Your task to perform on an android device: Open Reddit.com Image 0: 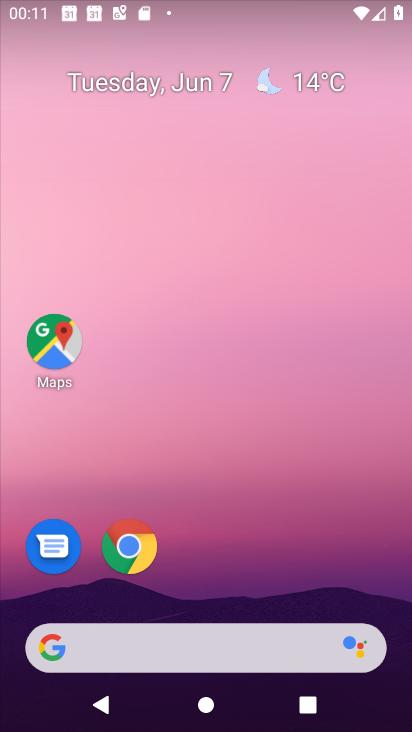
Step 0: click (141, 553)
Your task to perform on an android device: Open Reddit.com Image 1: 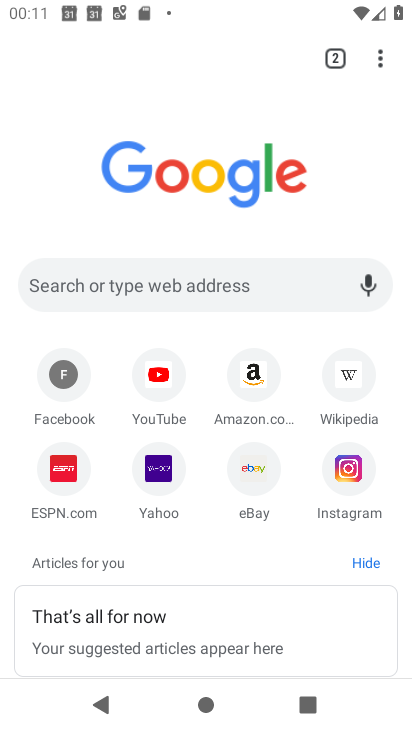
Step 1: click (206, 284)
Your task to perform on an android device: Open Reddit.com Image 2: 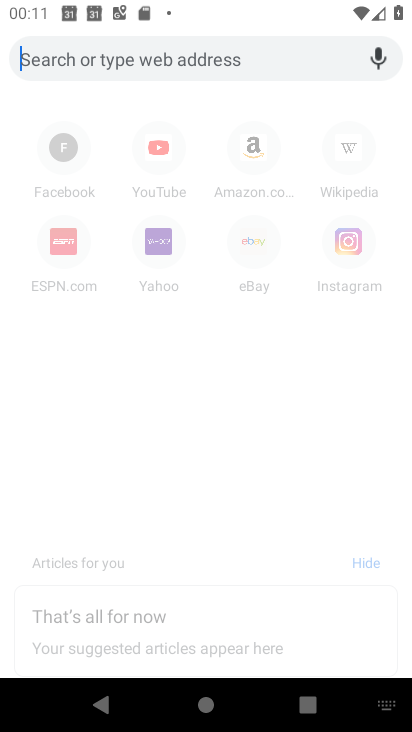
Step 2: type "Reddit.com"
Your task to perform on an android device: Open Reddit.com Image 3: 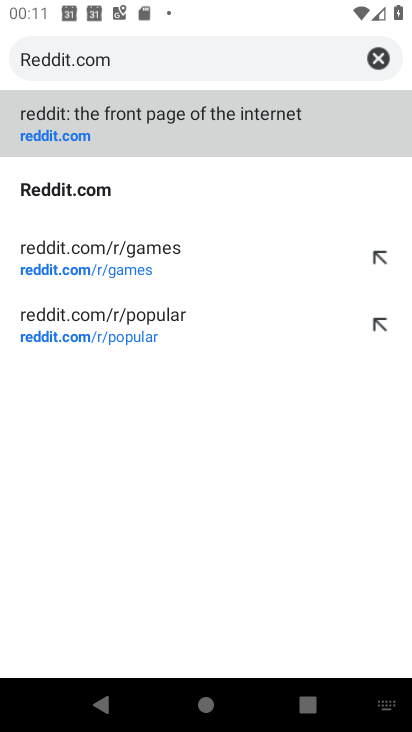
Step 3: click (75, 117)
Your task to perform on an android device: Open Reddit.com Image 4: 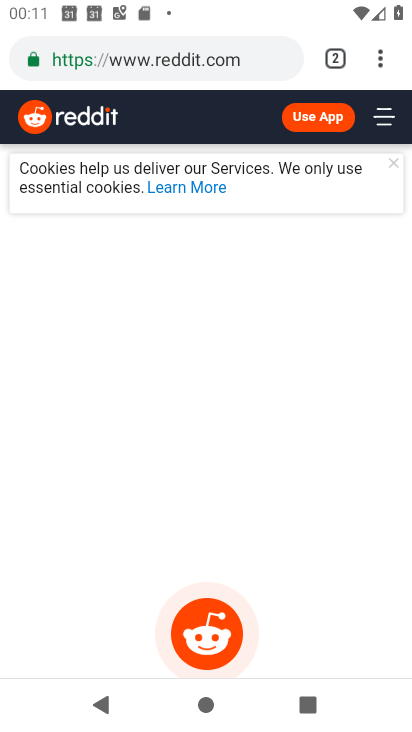
Step 4: task complete